Your task to perform on an android device: change the clock style Image 0: 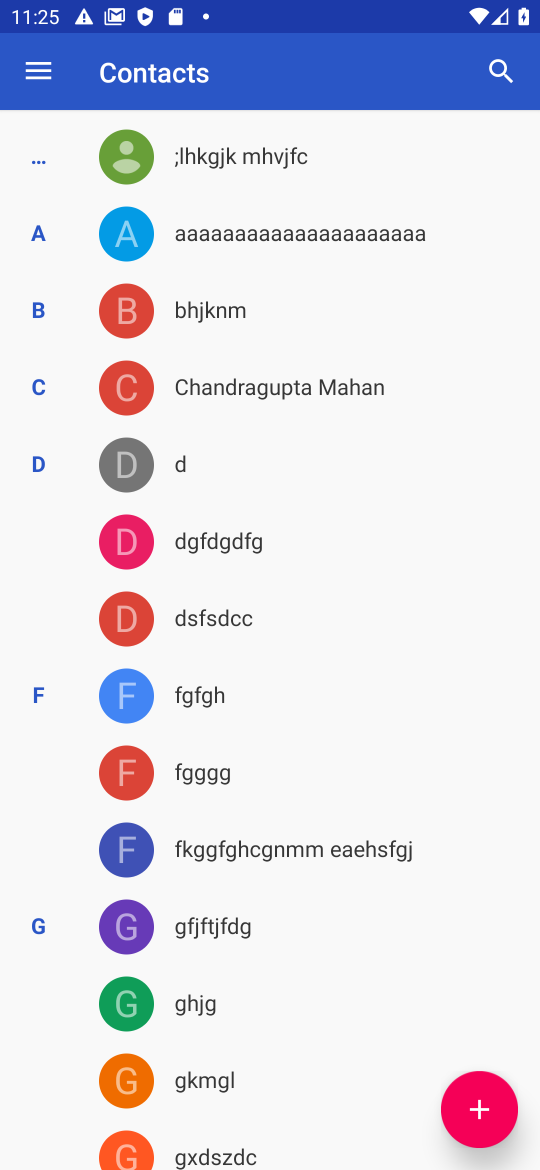
Step 0: press home button
Your task to perform on an android device: change the clock style Image 1: 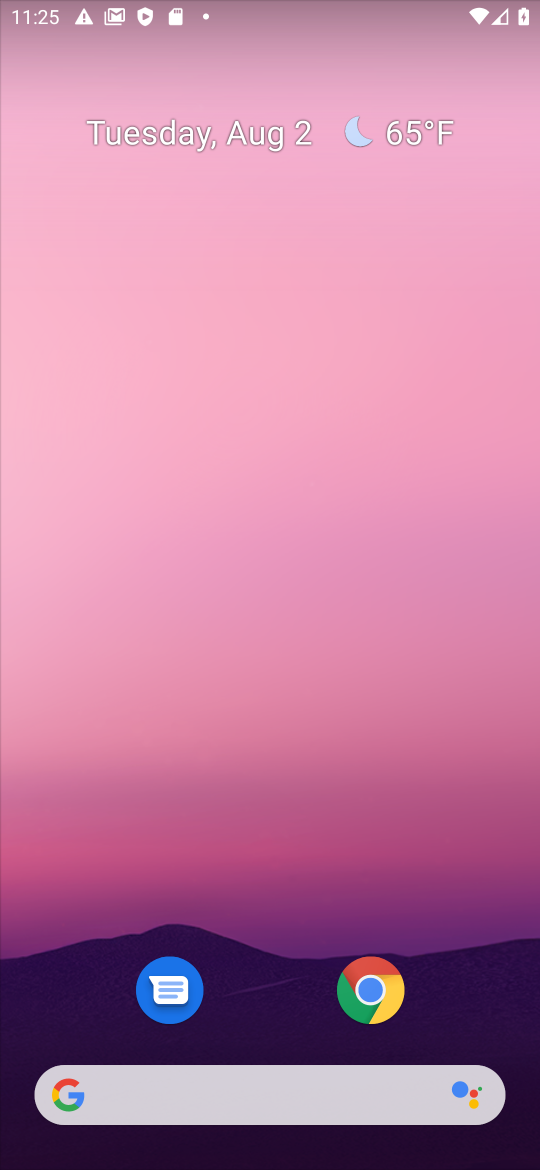
Step 1: drag from (243, 855) to (273, 82)
Your task to perform on an android device: change the clock style Image 2: 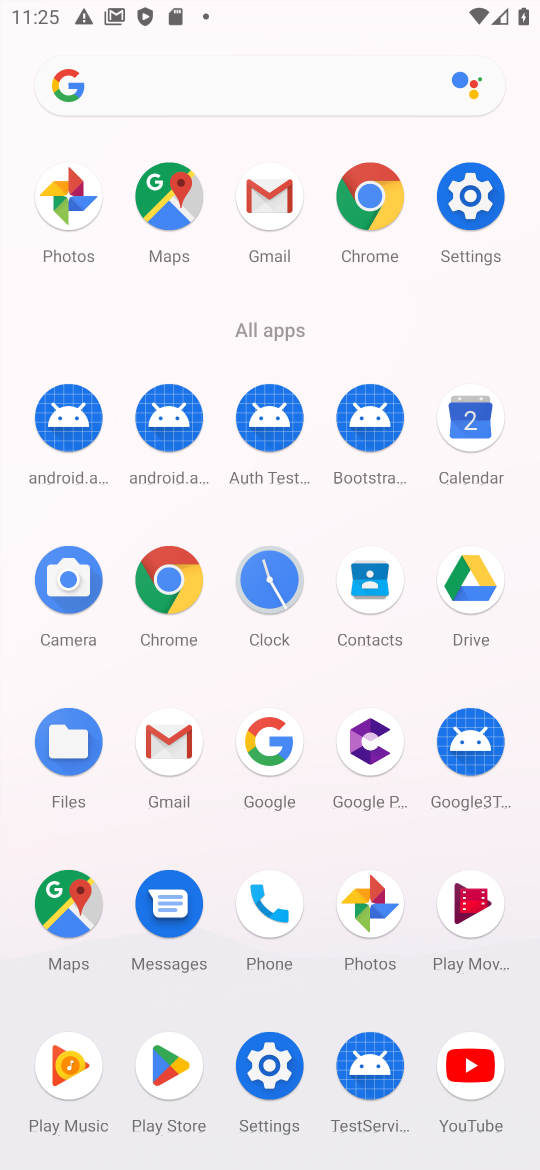
Step 2: click (274, 579)
Your task to perform on an android device: change the clock style Image 3: 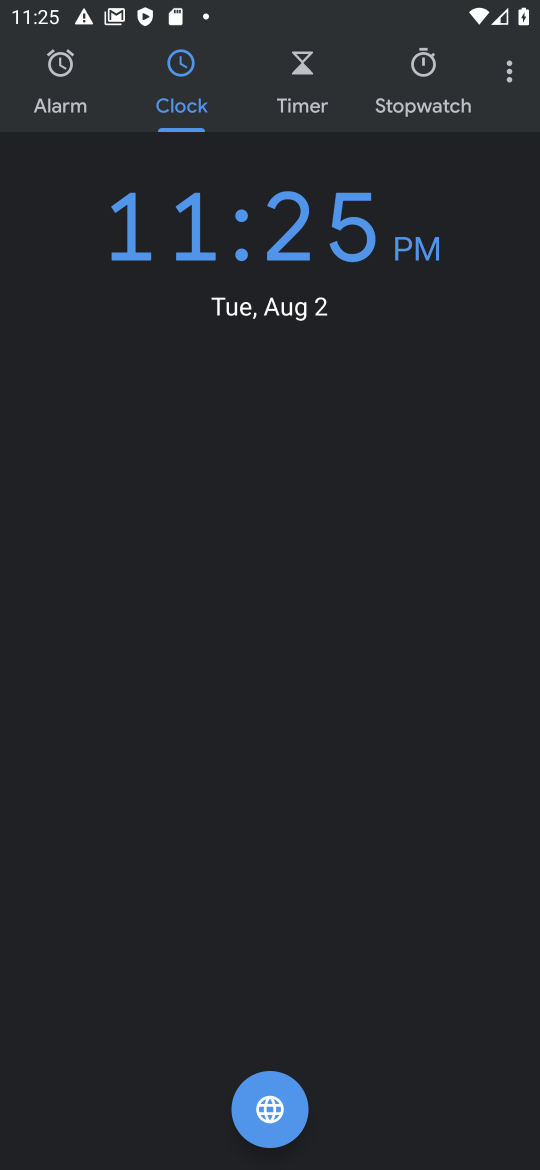
Step 3: click (505, 66)
Your task to perform on an android device: change the clock style Image 4: 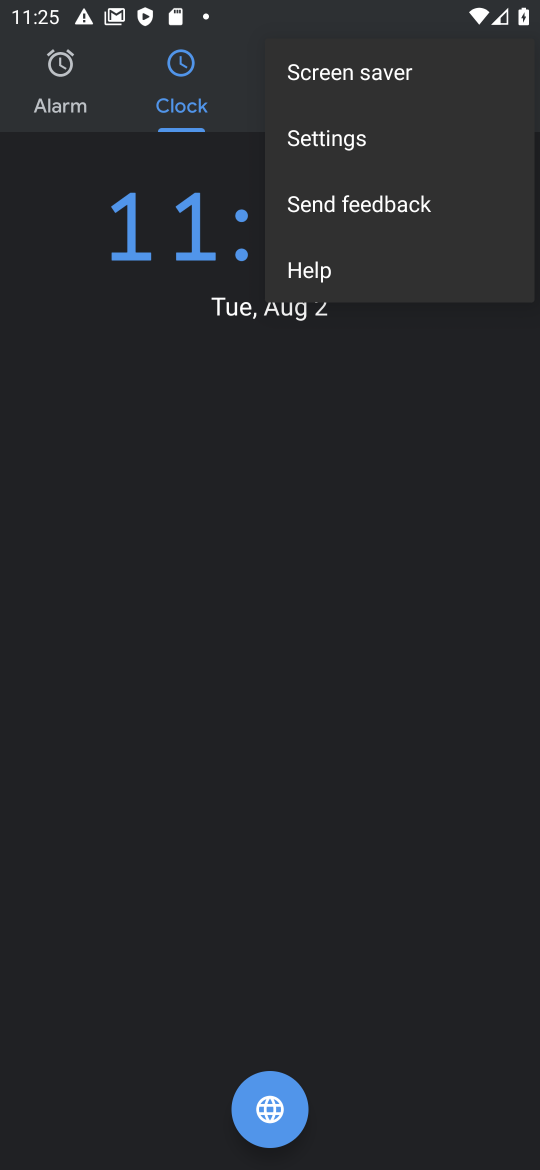
Step 4: click (316, 134)
Your task to perform on an android device: change the clock style Image 5: 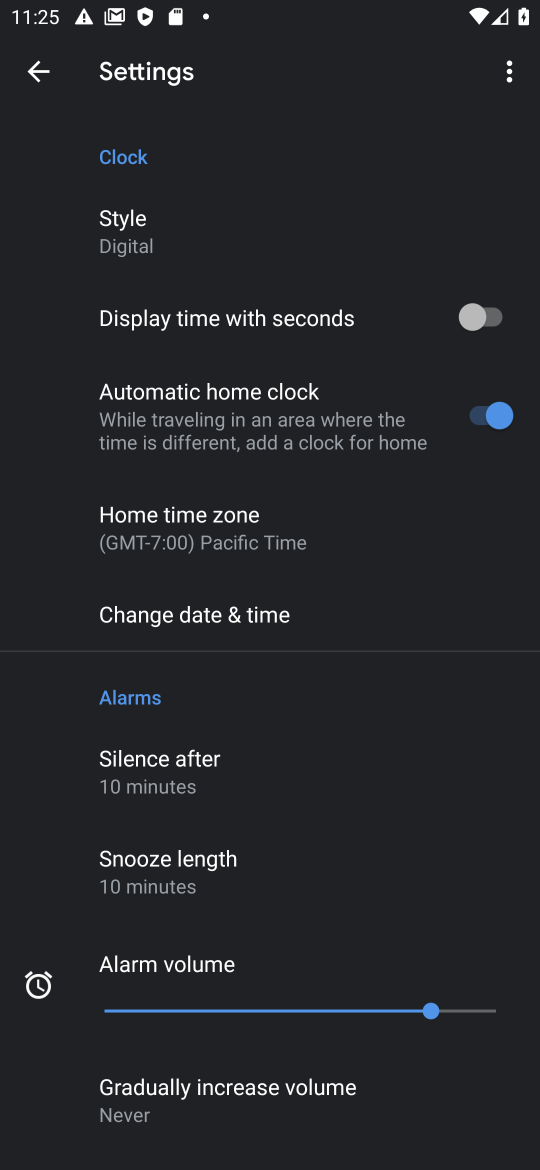
Step 5: click (161, 230)
Your task to perform on an android device: change the clock style Image 6: 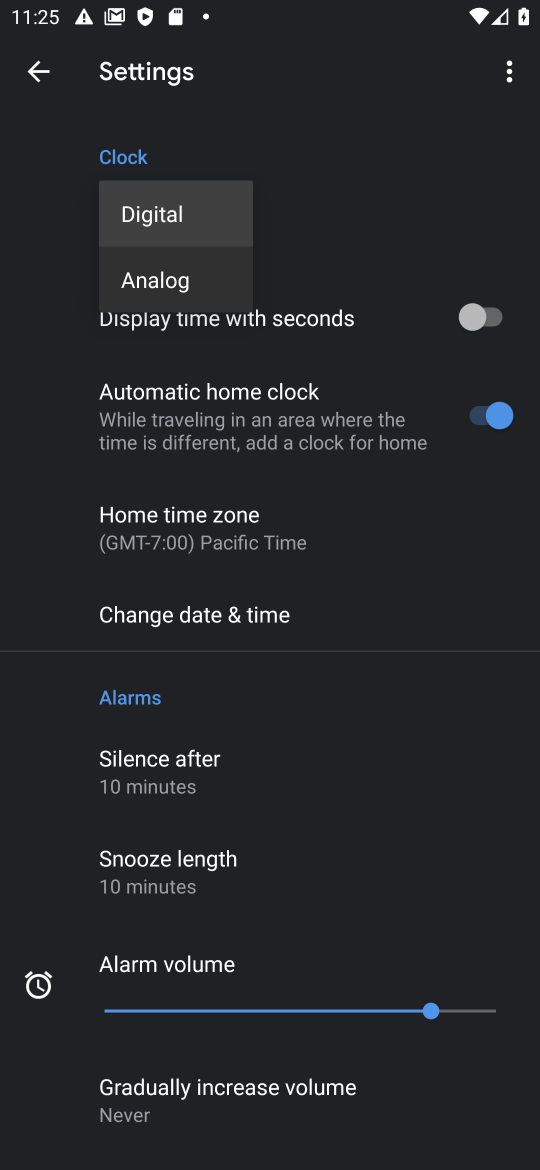
Step 6: click (178, 281)
Your task to perform on an android device: change the clock style Image 7: 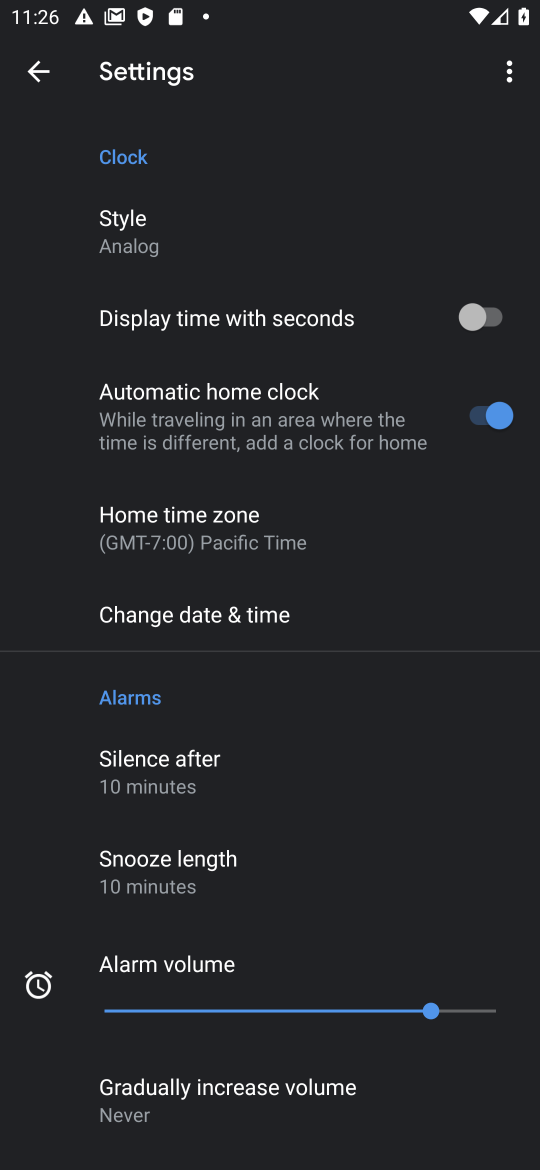
Step 7: press home button
Your task to perform on an android device: change the clock style Image 8: 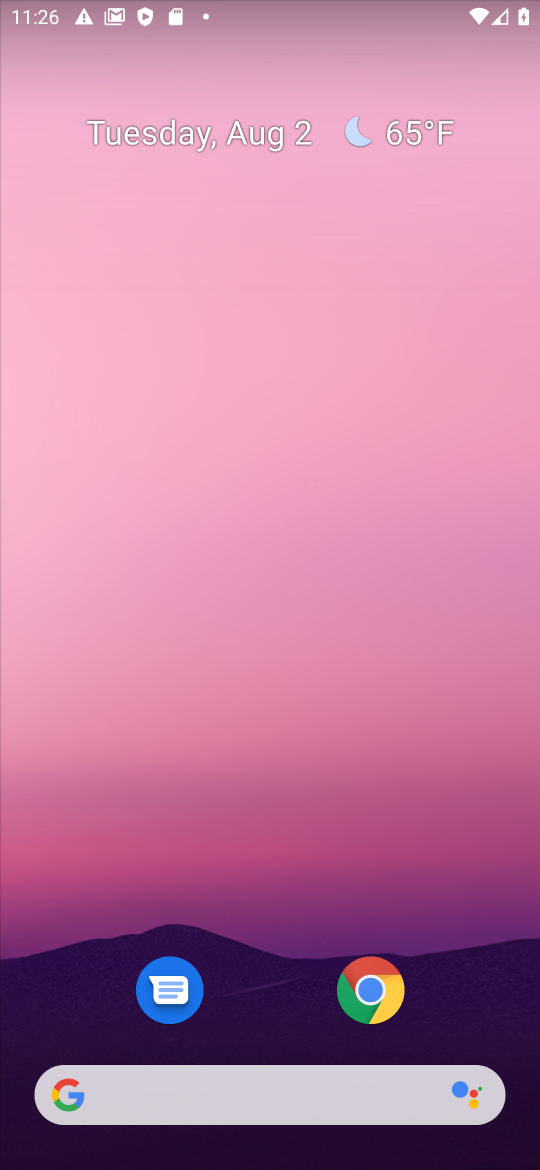
Step 8: drag from (275, 741) to (279, 358)
Your task to perform on an android device: change the clock style Image 9: 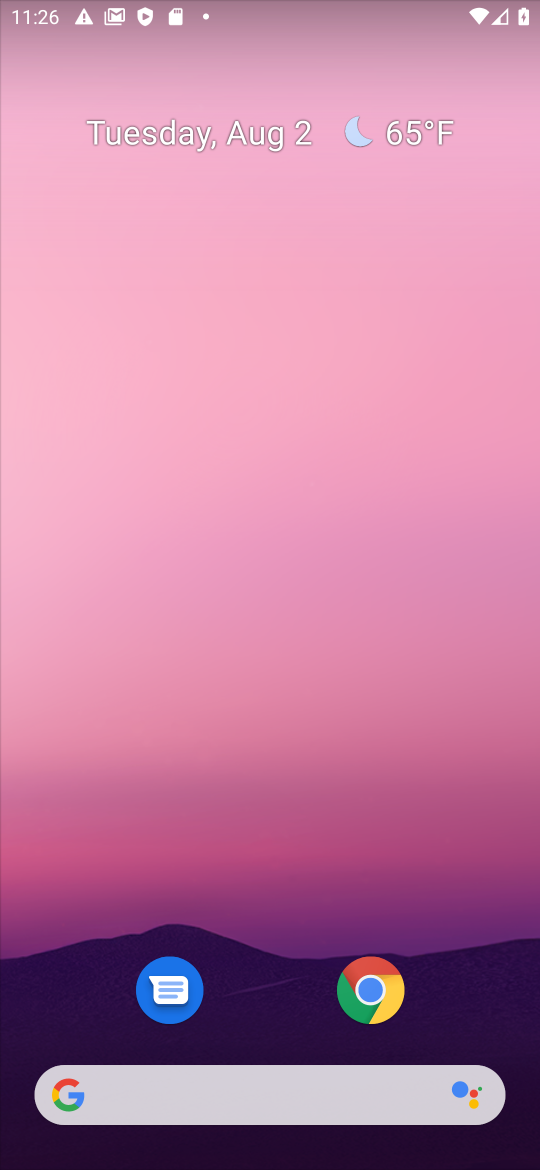
Step 9: drag from (236, 992) to (288, 51)
Your task to perform on an android device: change the clock style Image 10: 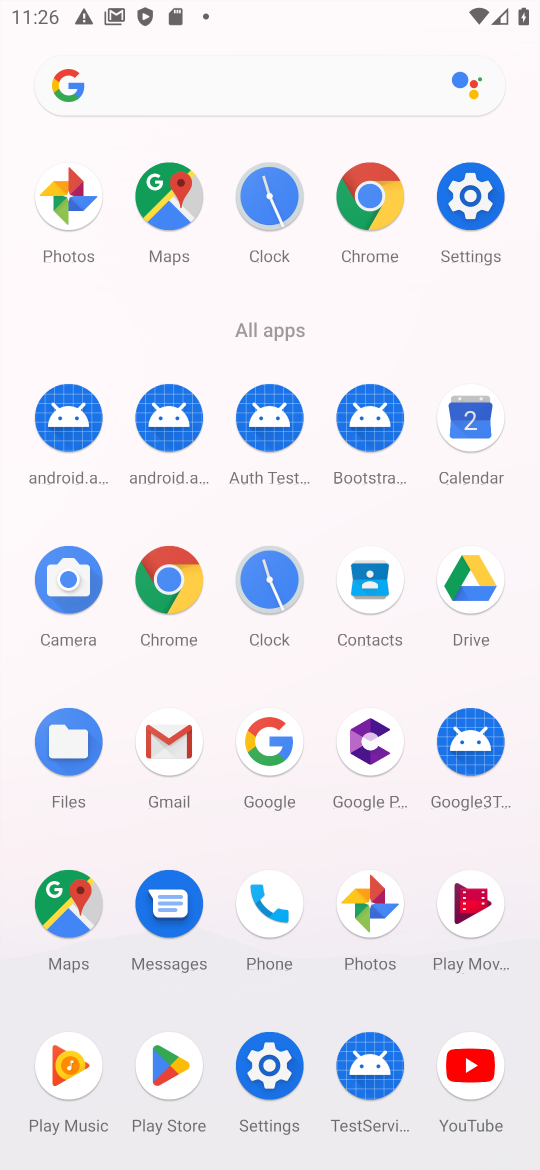
Step 10: click (272, 610)
Your task to perform on an android device: change the clock style Image 11: 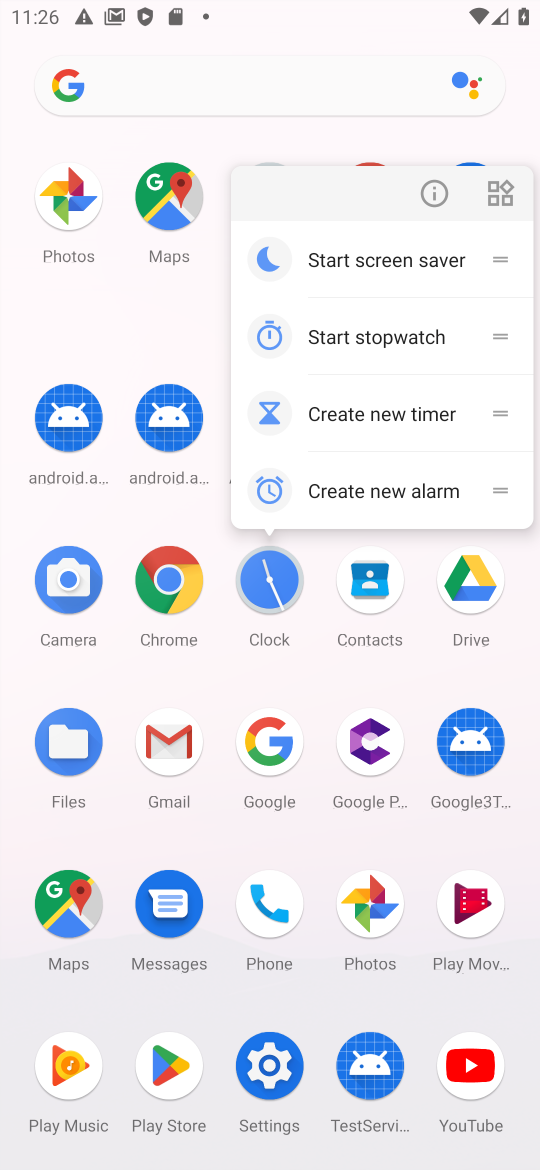
Step 11: click (268, 618)
Your task to perform on an android device: change the clock style Image 12: 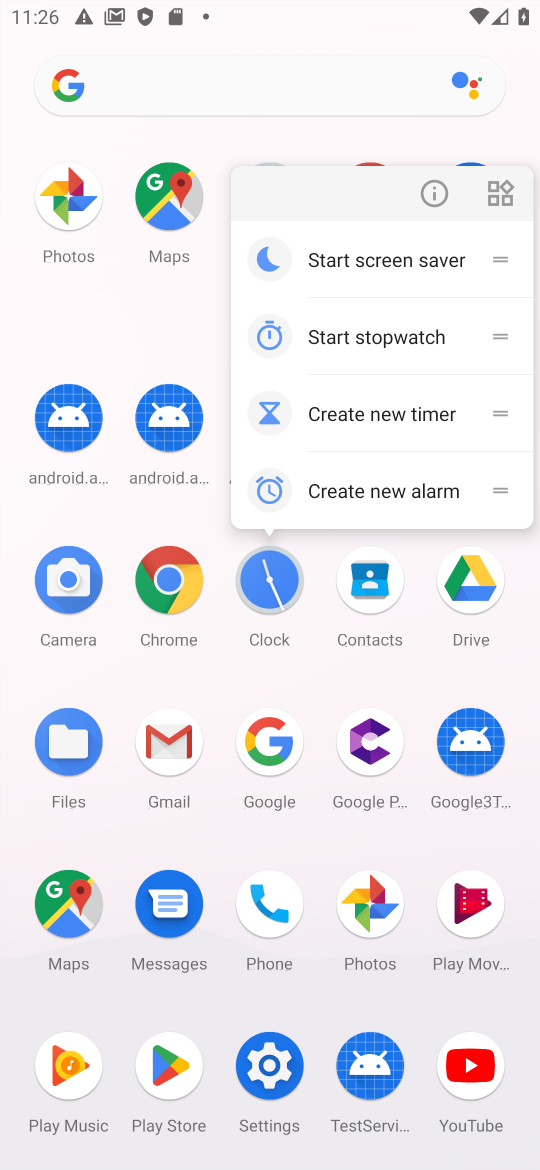
Step 12: click (271, 591)
Your task to perform on an android device: change the clock style Image 13: 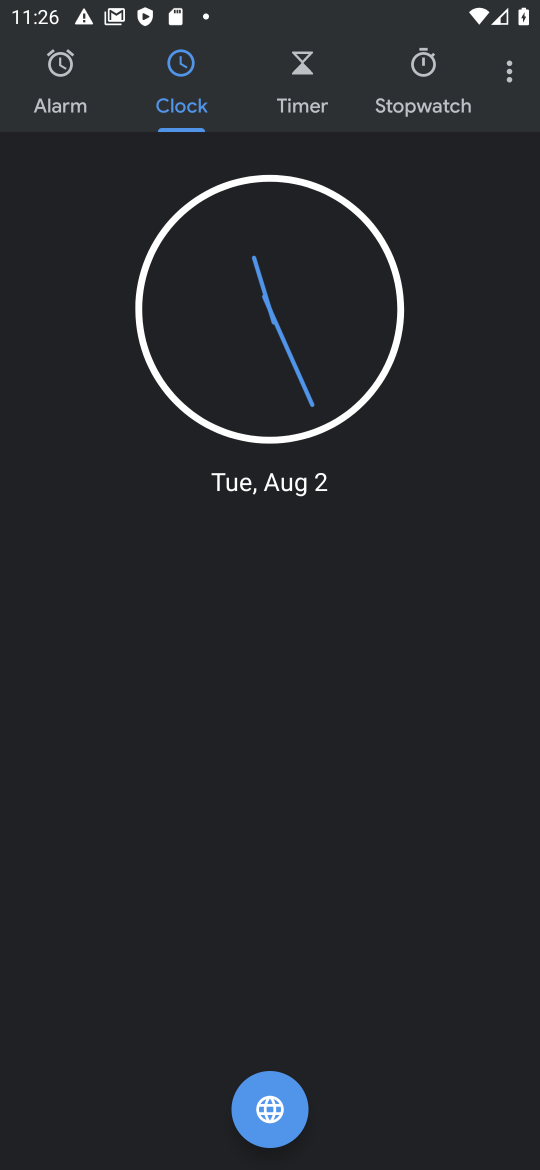
Step 13: click (506, 70)
Your task to perform on an android device: change the clock style Image 14: 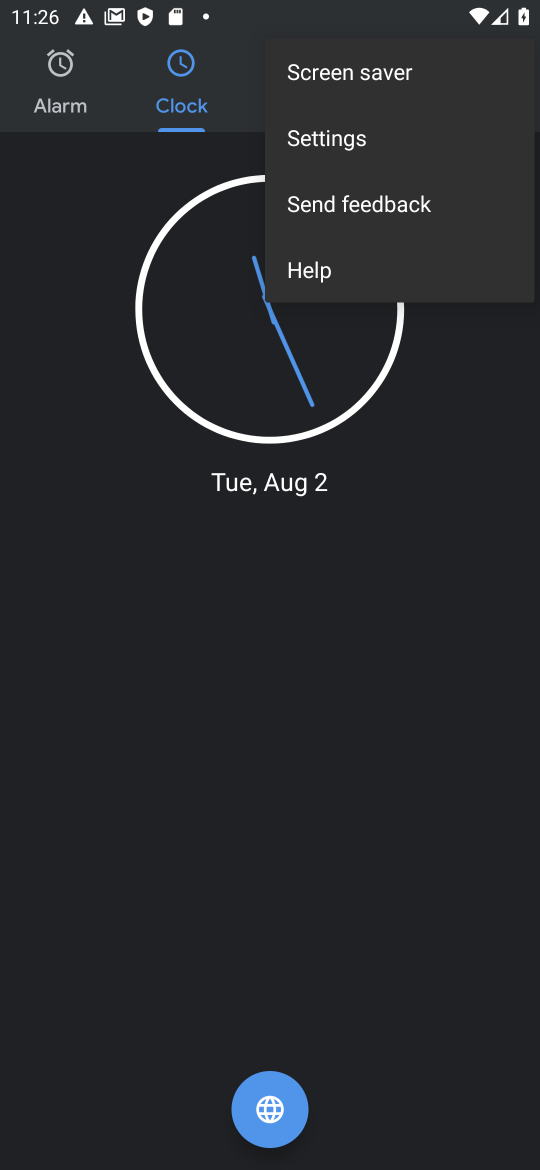
Step 14: click (352, 144)
Your task to perform on an android device: change the clock style Image 15: 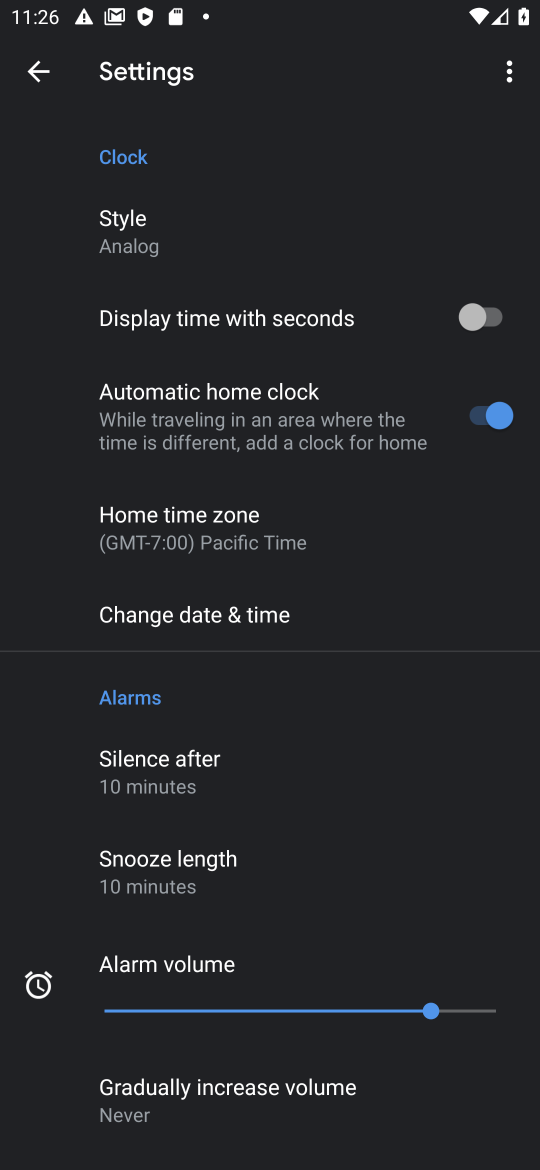
Step 15: click (168, 254)
Your task to perform on an android device: change the clock style Image 16: 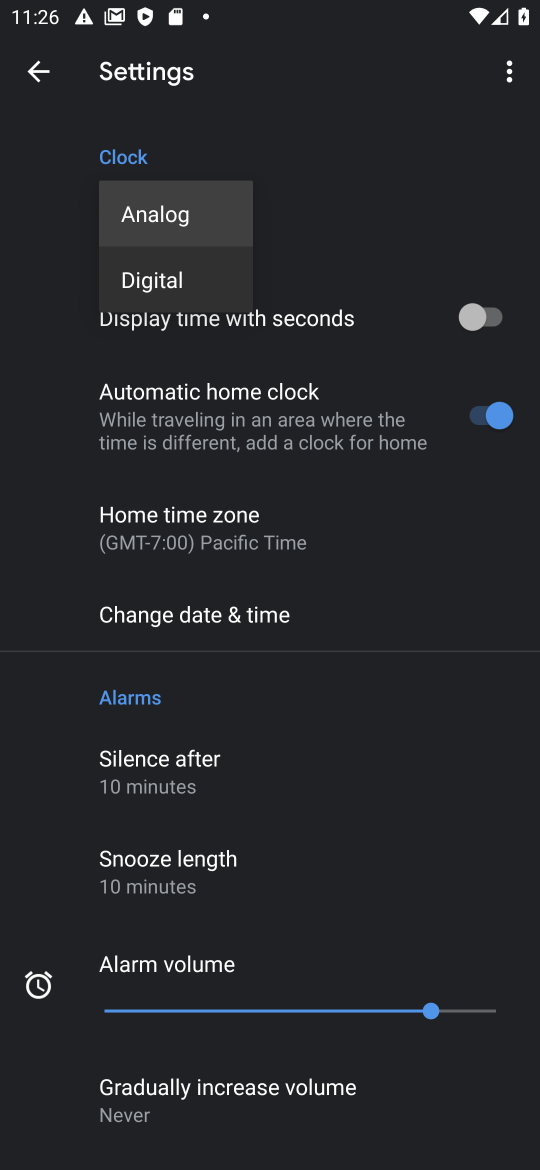
Step 16: click (173, 275)
Your task to perform on an android device: change the clock style Image 17: 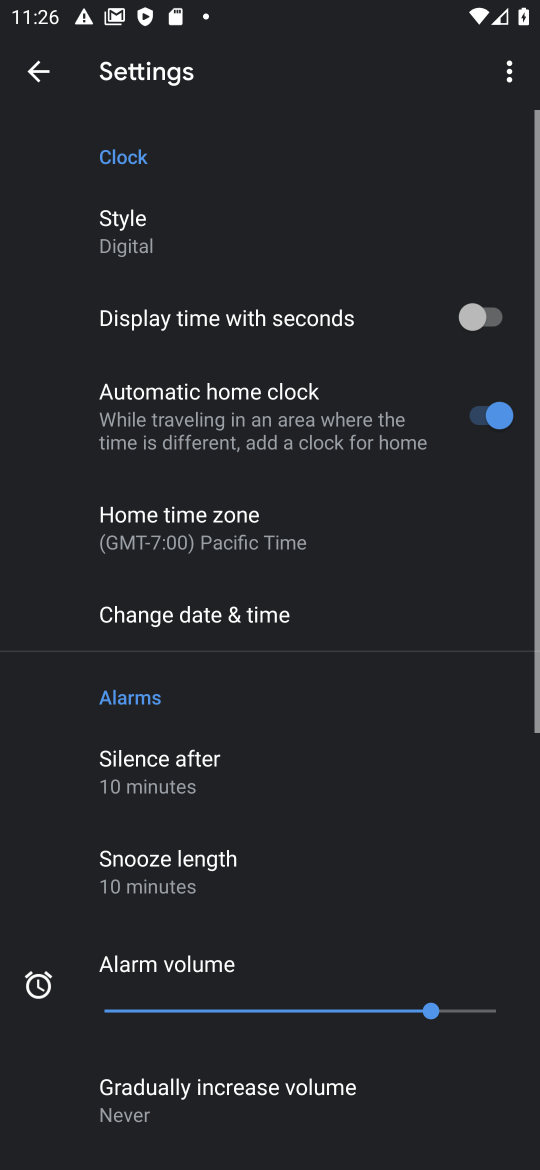
Step 17: task complete